Your task to perform on an android device: change keyboard looks Image 0: 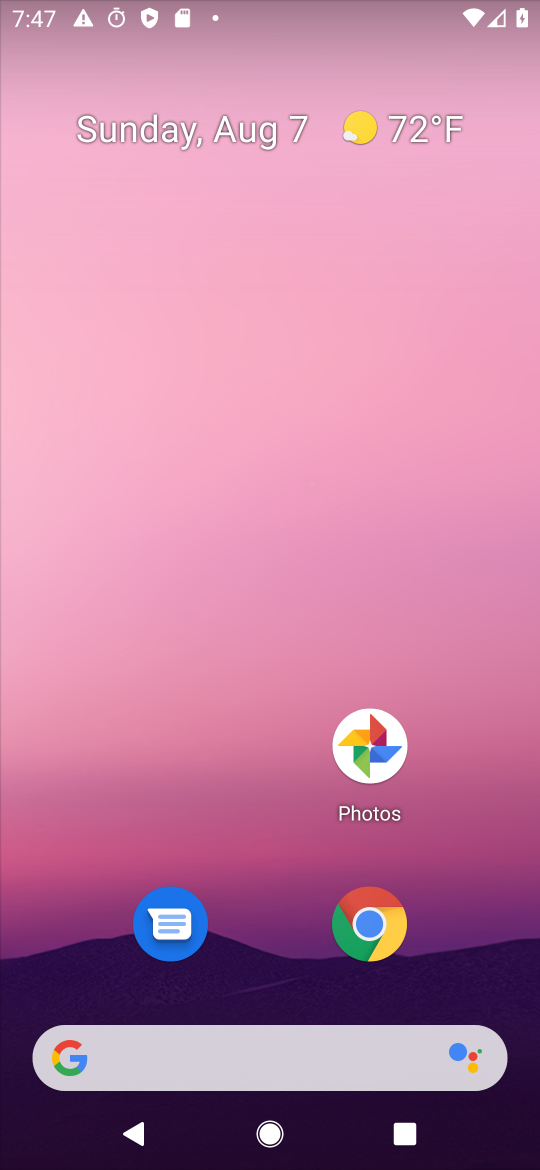
Step 0: drag from (291, 996) to (234, 262)
Your task to perform on an android device: change keyboard looks Image 1: 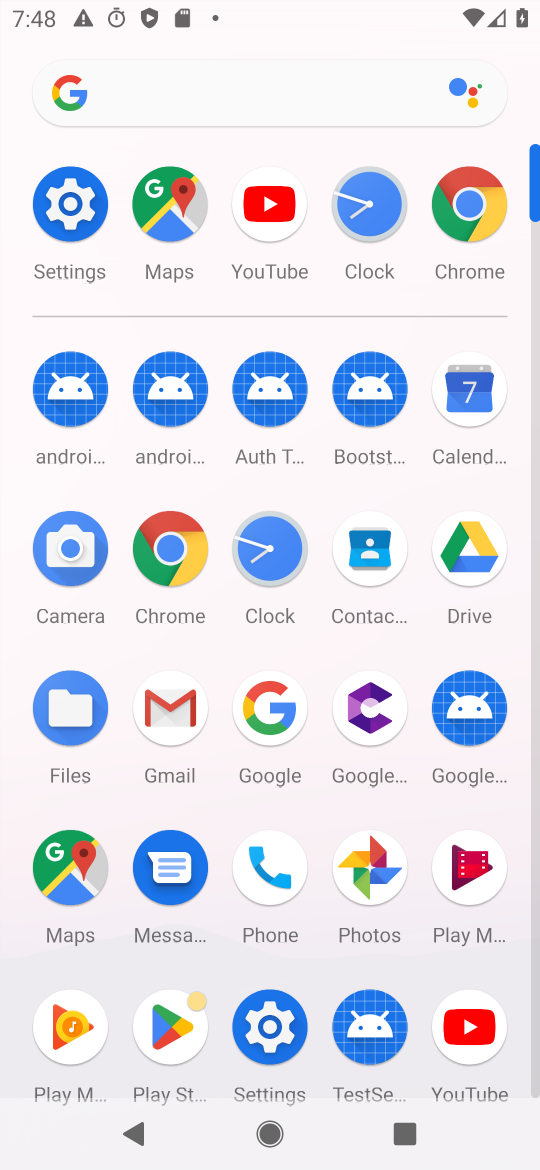
Step 1: click (70, 213)
Your task to perform on an android device: change keyboard looks Image 2: 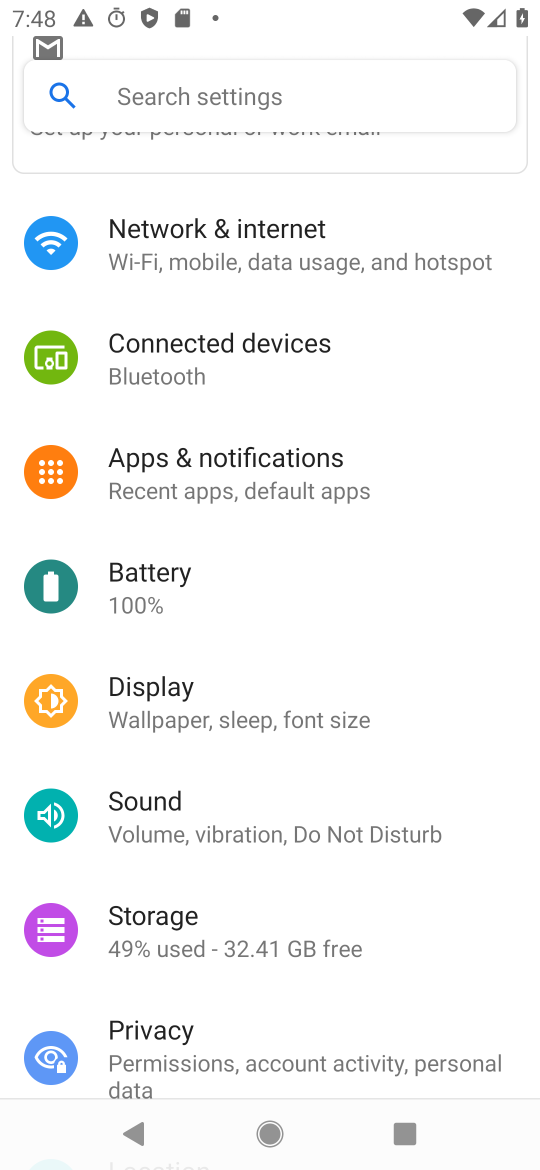
Step 2: click (190, 98)
Your task to perform on an android device: change keyboard looks Image 3: 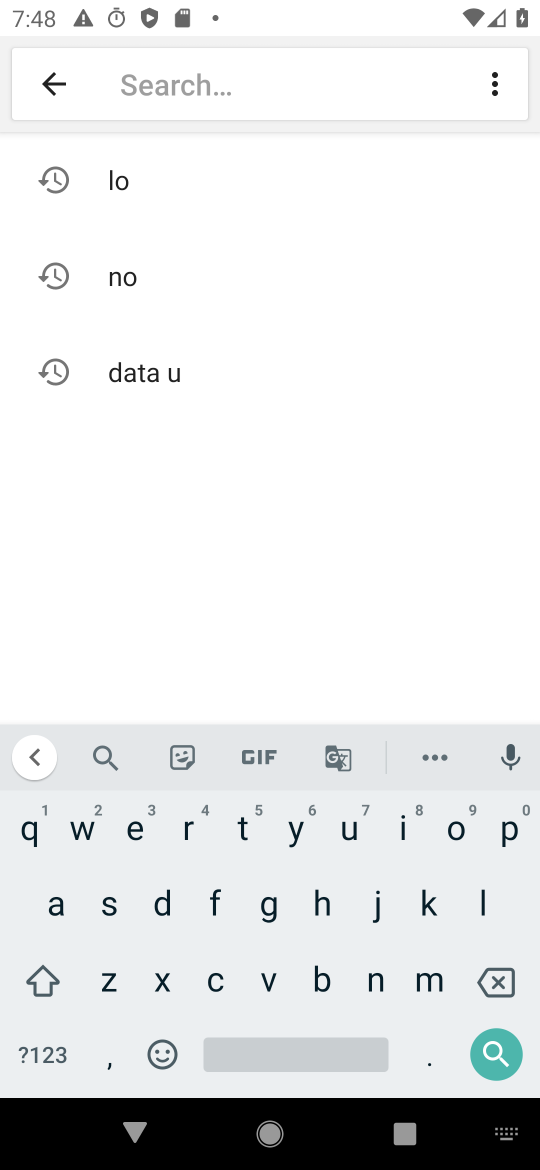
Step 3: click (423, 909)
Your task to perform on an android device: change keyboard looks Image 4: 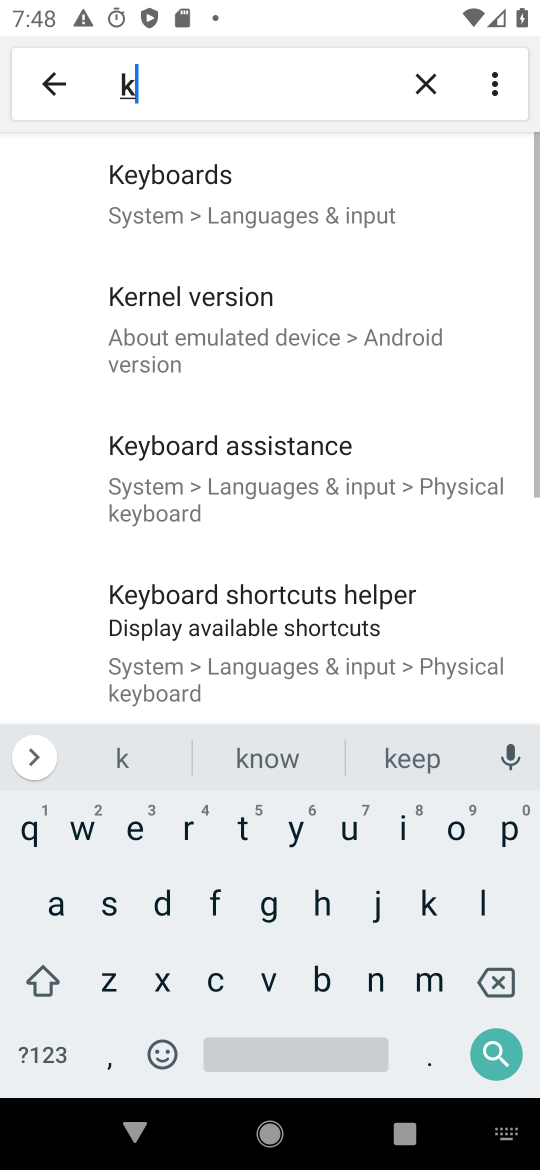
Step 4: click (122, 816)
Your task to perform on an android device: change keyboard looks Image 5: 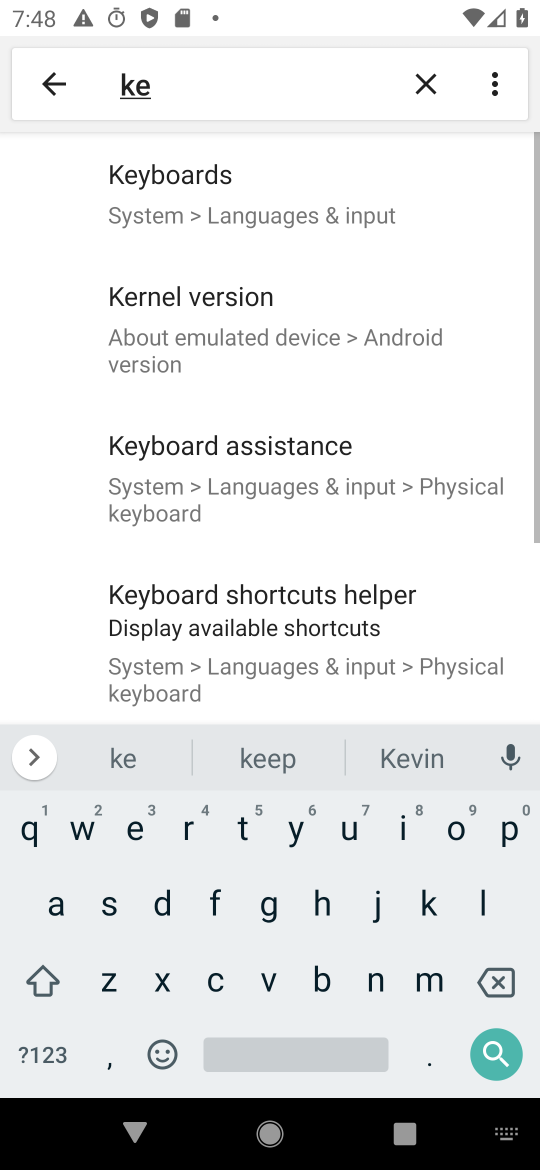
Step 5: click (208, 189)
Your task to perform on an android device: change keyboard looks Image 6: 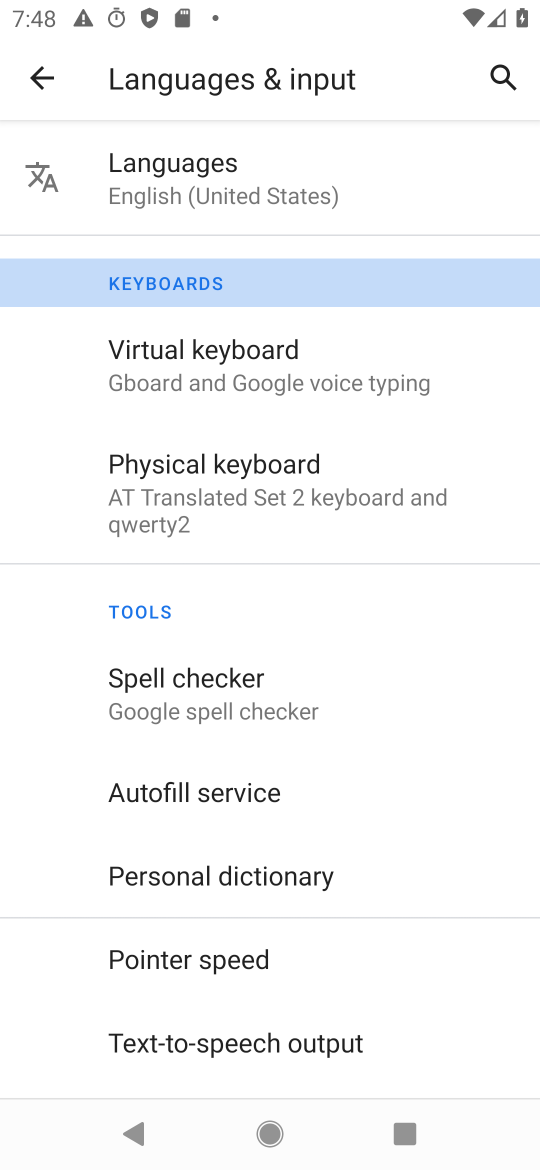
Step 6: click (196, 374)
Your task to perform on an android device: change keyboard looks Image 7: 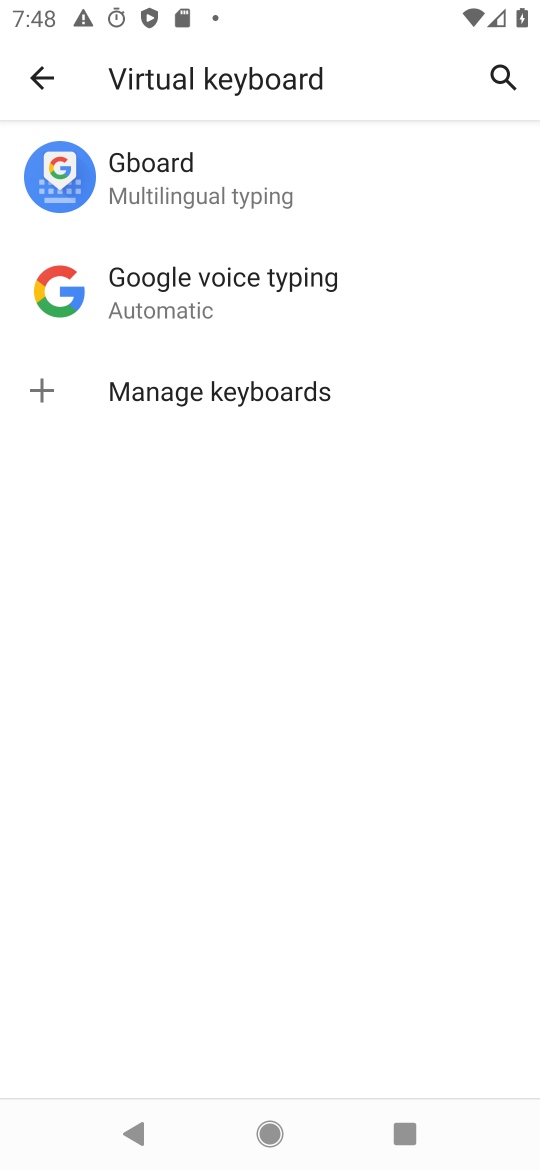
Step 7: click (191, 221)
Your task to perform on an android device: change keyboard looks Image 8: 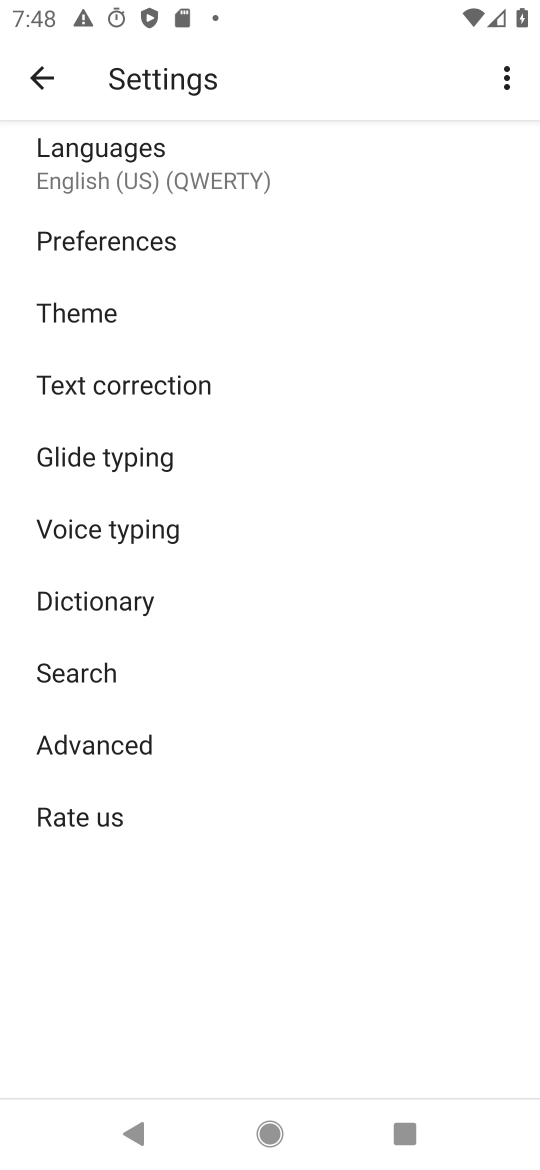
Step 8: click (121, 335)
Your task to perform on an android device: change keyboard looks Image 9: 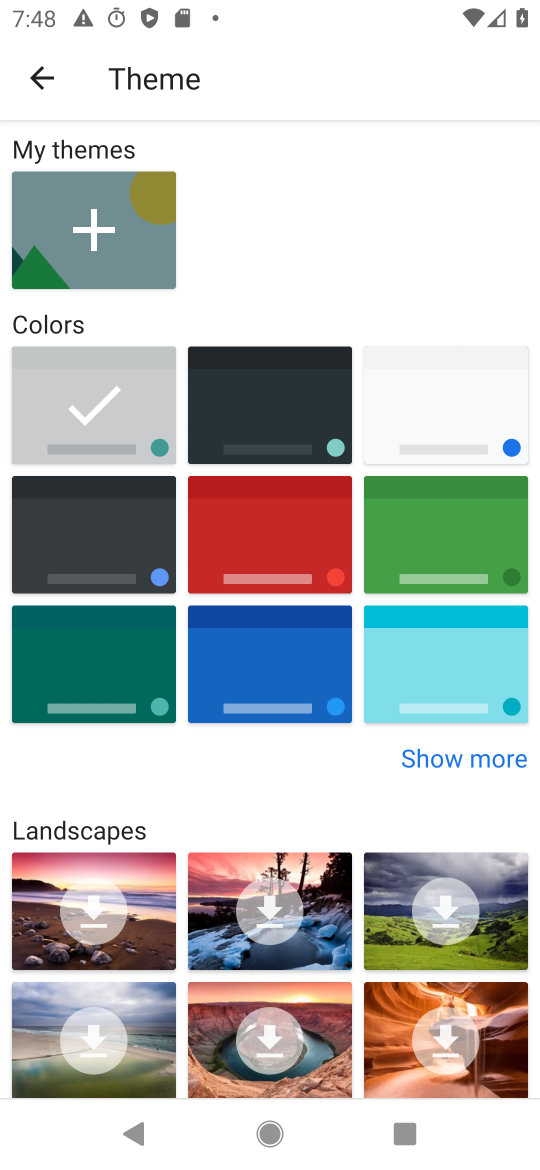
Step 9: click (477, 665)
Your task to perform on an android device: change keyboard looks Image 10: 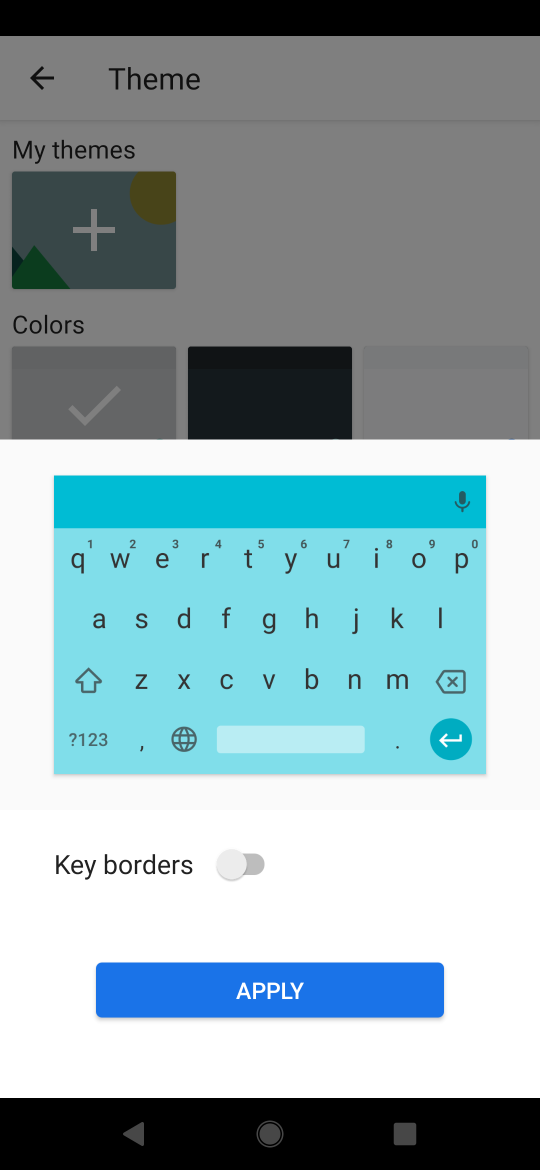
Step 10: click (241, 852)
Your task to perform on an android device: change keyboard looks Image 11: 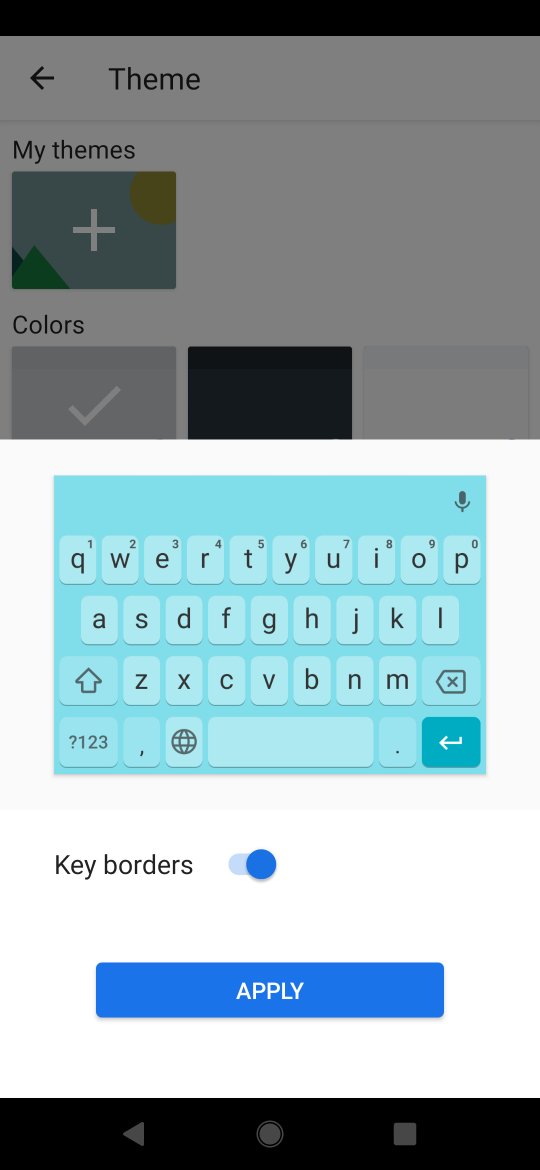
Step 11: click (249, 988)
Your task to perform on an android device: change keyboard looks Image 12: 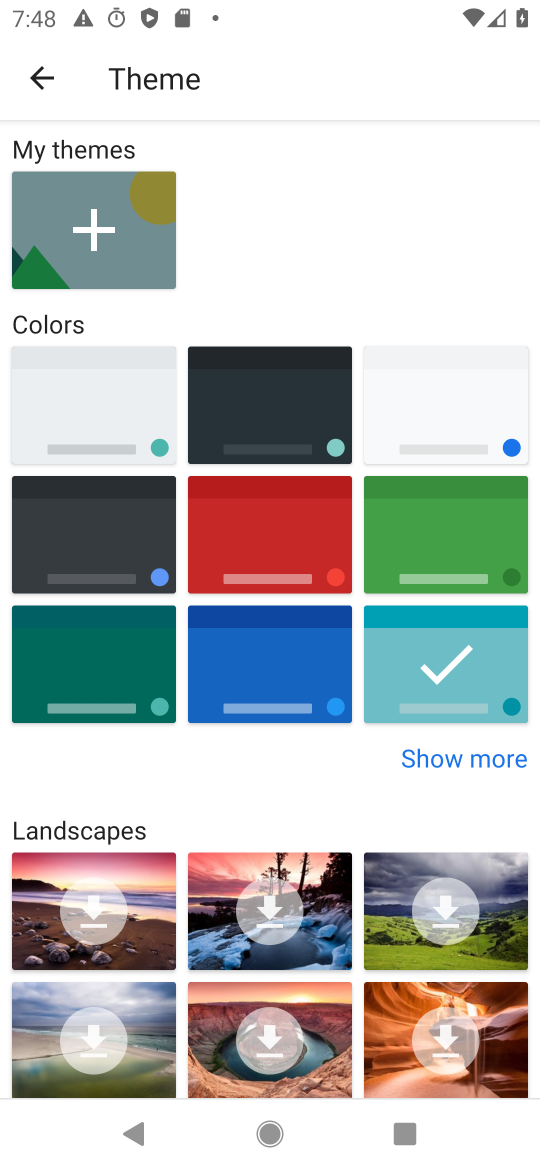
Step 12: task complete